Your task to perform on an android device: Search for a custom made wallet on Etsy Image 0: 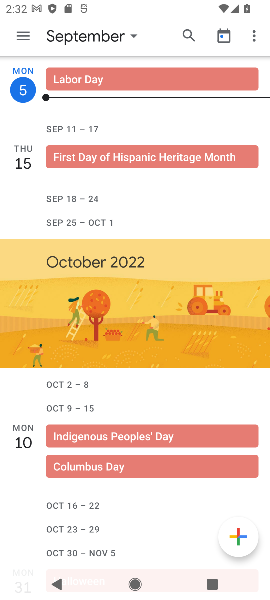
Step 0: press home button
Your task to perform on an android device: Search for a custom made wallet on Etsy Image 1: 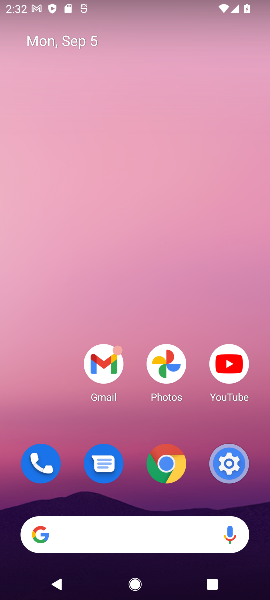
Step 1: click (156, 156)
Your task to perform on an android device: Search for a custom made wallet on Etsy Image 2: 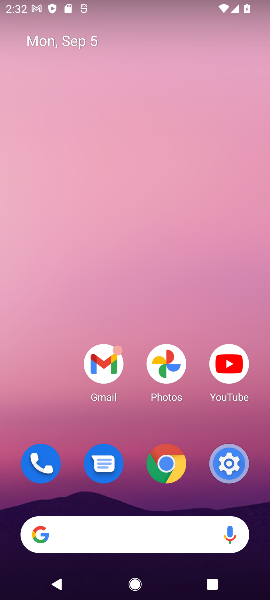
Step 2: drag from (105, 495) to (110, 114)
Your task to perform on an android device: Search for a custom made wallet on Etsy Image 3: 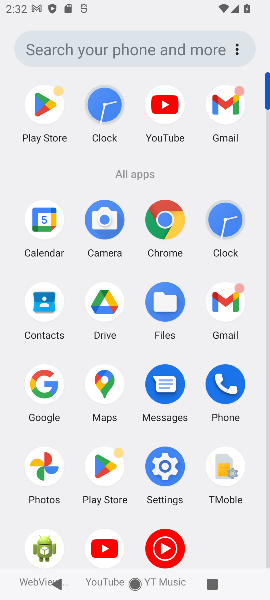
Step 3: drag from (125, 430) to (153, 179)
Your task to perform on an android device: Search for a custom made wallet on Etsy Image 4: 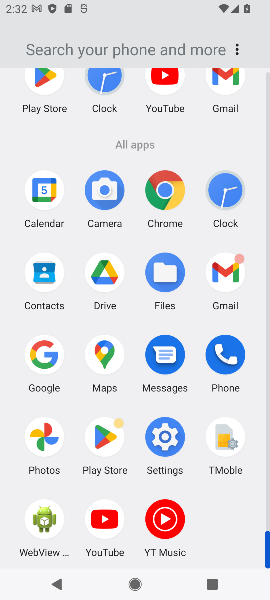
Step 4: click (42, 347)
Your task to perform on an android device: Search for a custom made wallet on Etsy Image 5: 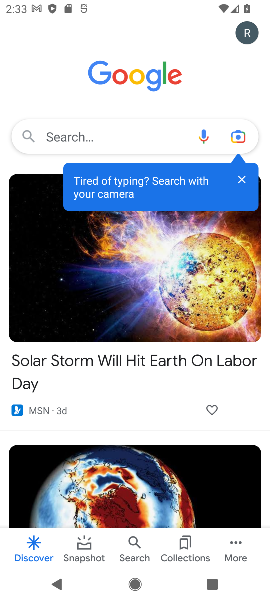
Step 5: click (101, 139)
Your task to perform on an android device: Search for a custom made wallet on Etsy Image 6: 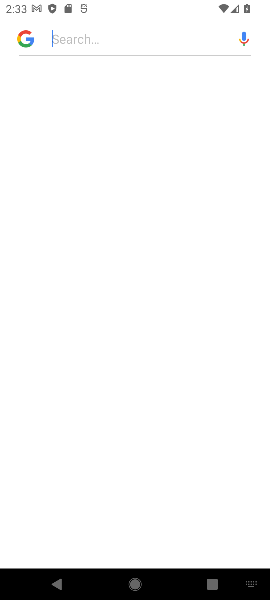
Step 6: type " custom made wallet on Etsy "
Your task to perform on an android device: Search for a custom made wallet on Etsy Image 7: 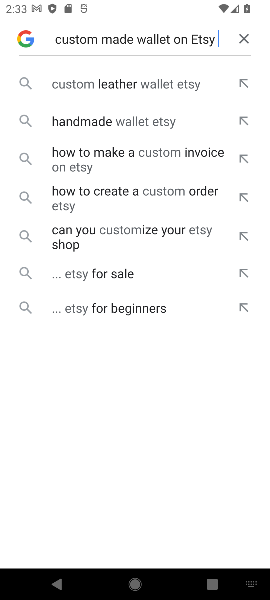
Step 7: click (149, 86)
Your task to perform on an android device: Search for a custom made wallet on Etsy Image 8: 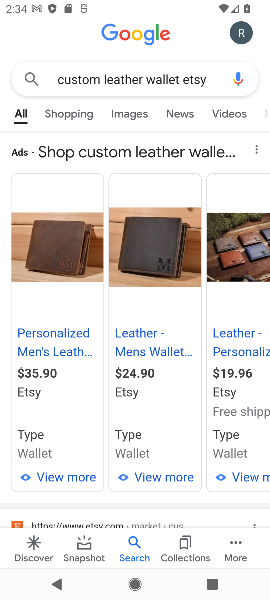
Step 8: task complete